Your task to perform on an android device: check android version Image 0: 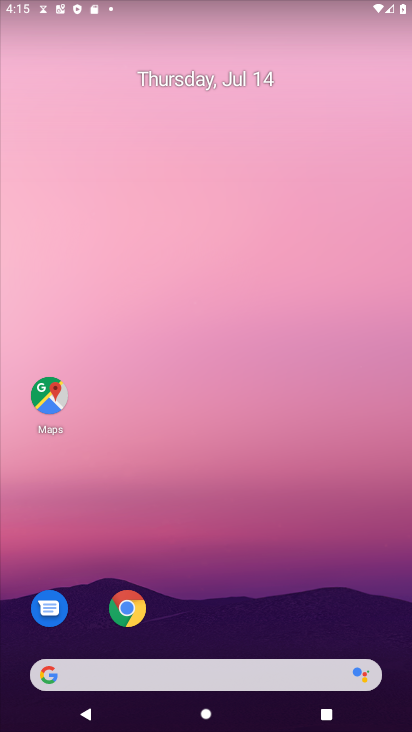
Step 0: drag from (206, 559) to (260, 200)
Your task to perform on an android device: check android version Image 1: 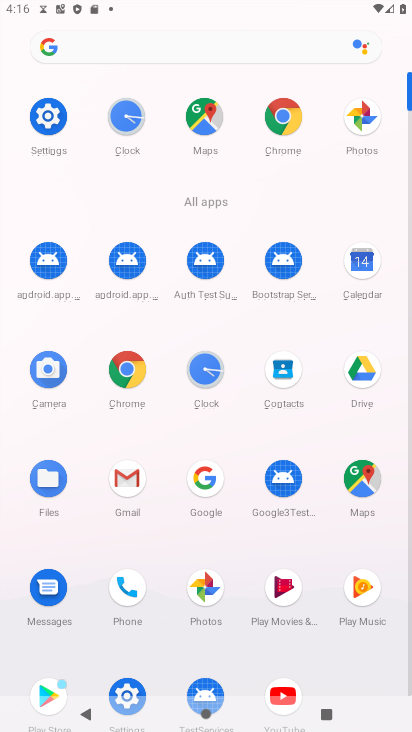
Step 1: click (123, 701)
Your task to perform on an android device: check android version Image 2: 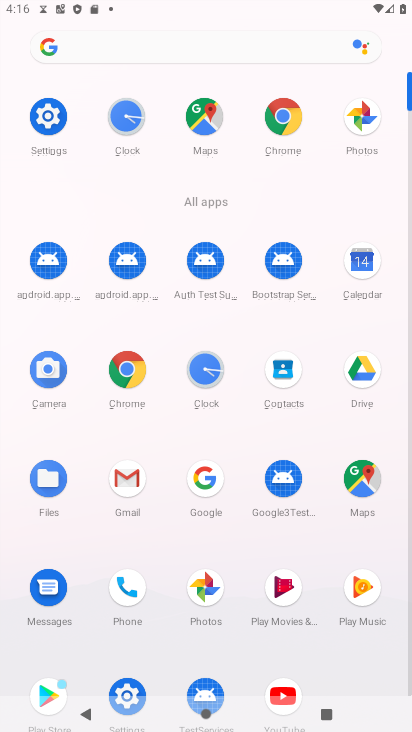
Step 2: click (121, 690)
Your task to perform on an android device: check android version Image 3: 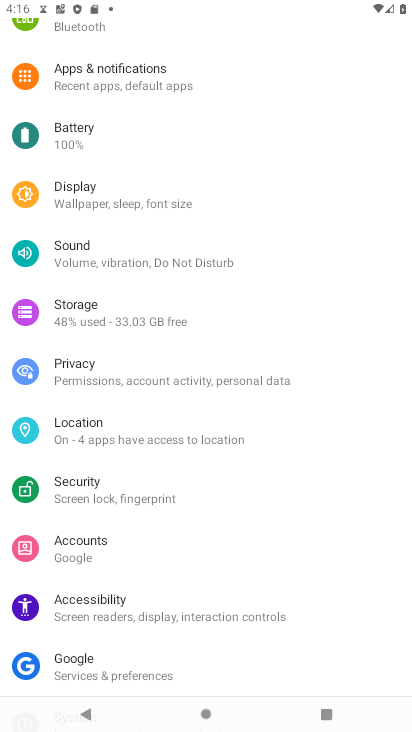
Step 3: drag from (198, 666) to (227, 254)
Your task to perform on an android device: check android version Image 4: 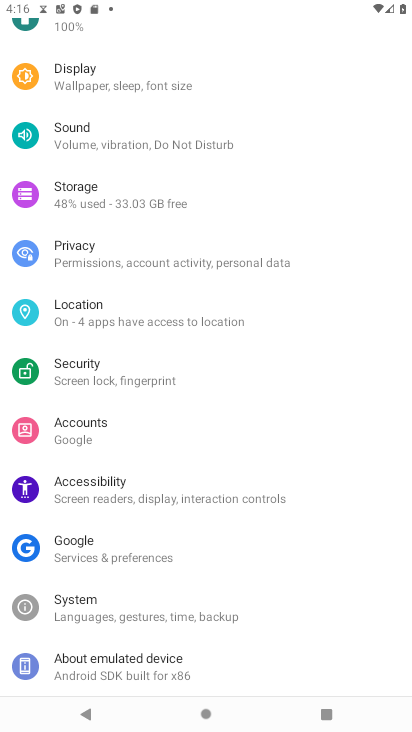
Step 4: click (121, 673)
Your task to perform on an android device: check android version Image 5: 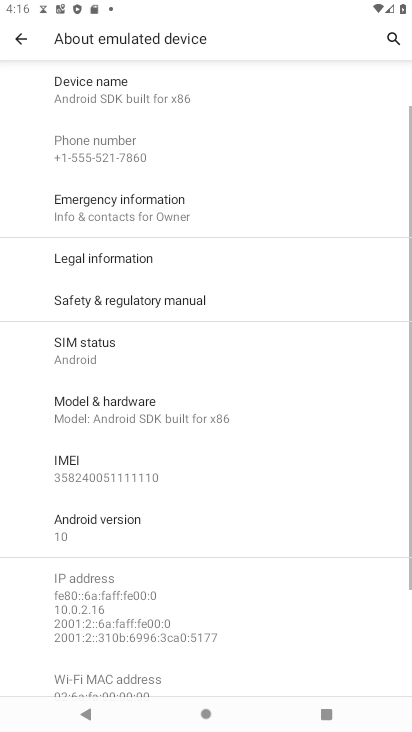
Step 5: click (108, 525)
Your task to perform on an android device: check android version Image 6: 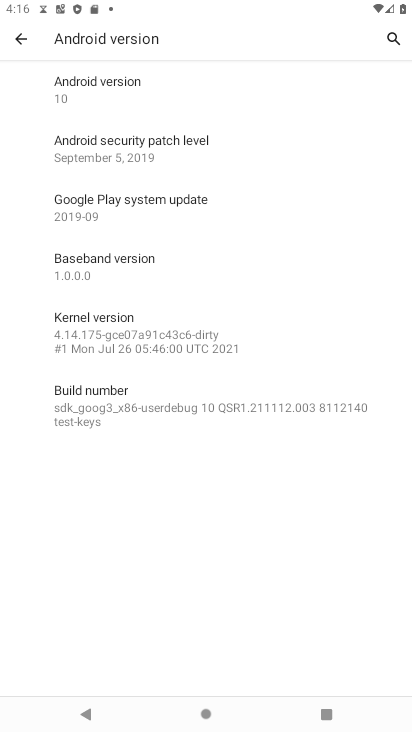
Step 6: task complete